Your task to perform on an android device: empty trash in google photos Image 0: 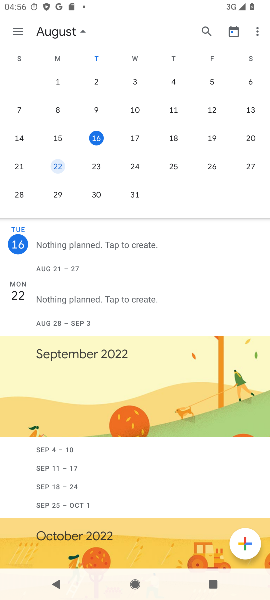
Step 0: press home button
Your task to perform on an android device: empty trash in google photos Image 1: 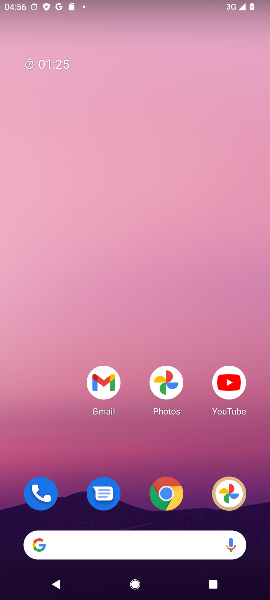
Step 1: drag from (55, 436) to (75, 103)
Your task to perform on an android device: empty trash in google photos Image 2: 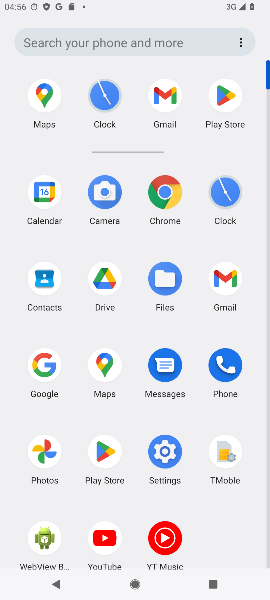
Step 2: click (41, 456)
Your task to perform on an android device: empty trash in google photos Image 3: 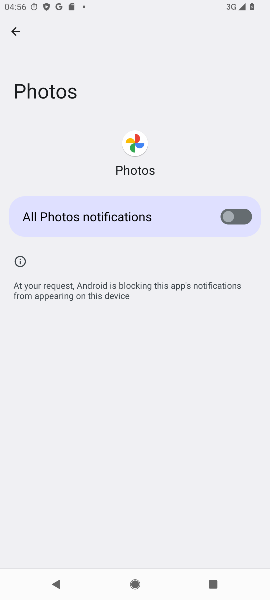
Step 3: press back button
Your task to perform on an android device: empty trash in google photos Image 4: 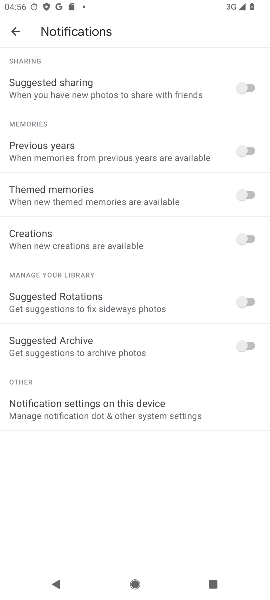
Step 4: press back button
Your task to perform on an android device: empty trash in google photos Image 5: 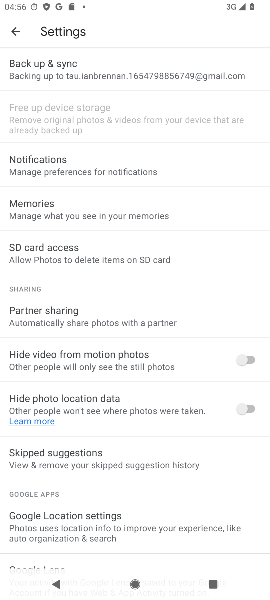
Step 5: press back button
Your task to perform on an android device: empty trash in google photos Image 6: 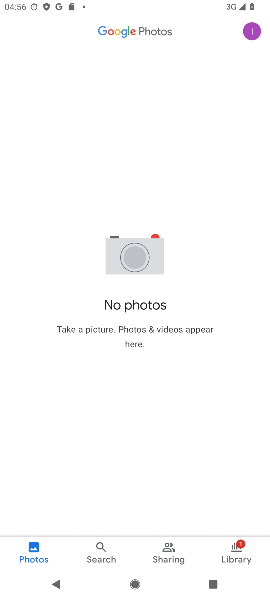
Step 6: click (242, 553)
Your task to perform on an android device: empty trash in google photos Image 7: 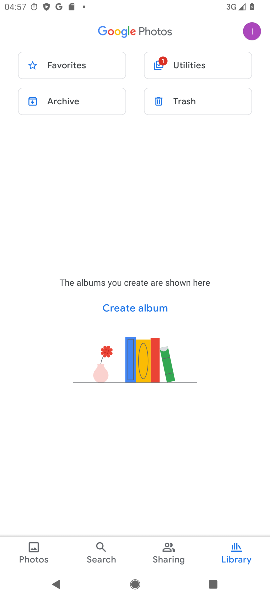
Step 7: click (189, 92)
Your task to perform on an android device: empty trash in google photos Image 8: 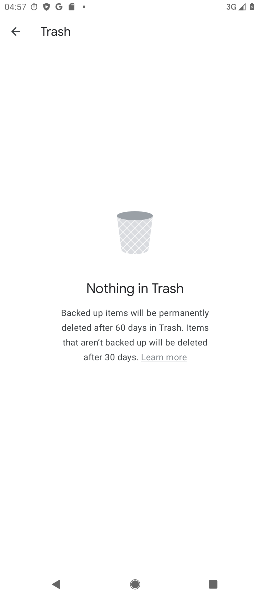
Step 8: task complete